Your task to perform on an android device: Open location settings Image 0: 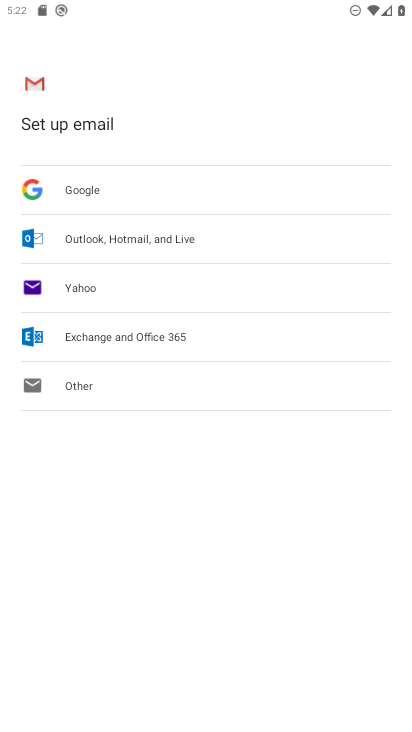
Step 0: press back button
Your task to perform on an android device: Open location settings Image 1: 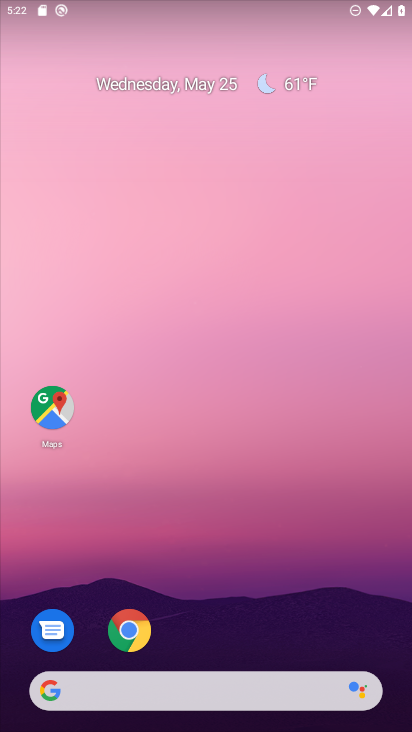
Step 1: drag from (232, 643) to (256, 21)
Your task to perform on an android device: Open location settings Image 2: 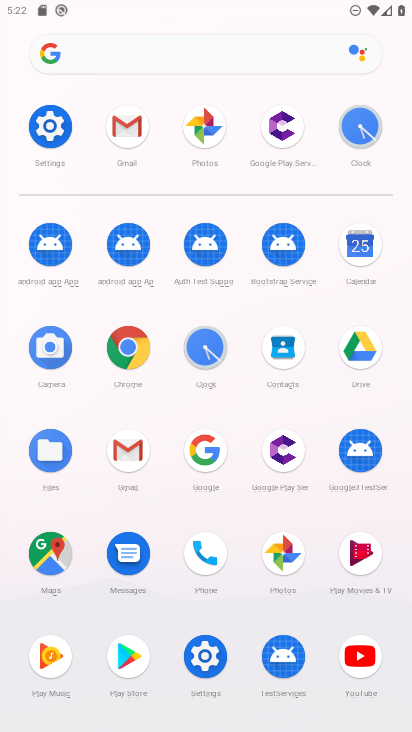
Step 2: click (46, 127)
Your task to perform on an android device: Open location settings Image 3: 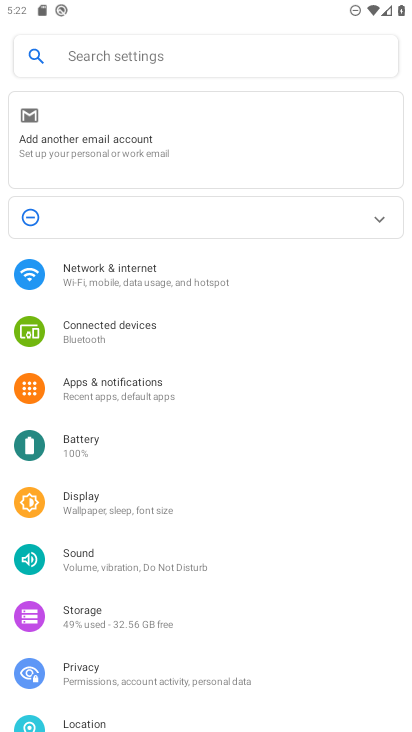
Step 3: click (82, 717)
Your task to perform on an android device: Open location settings Image 4: 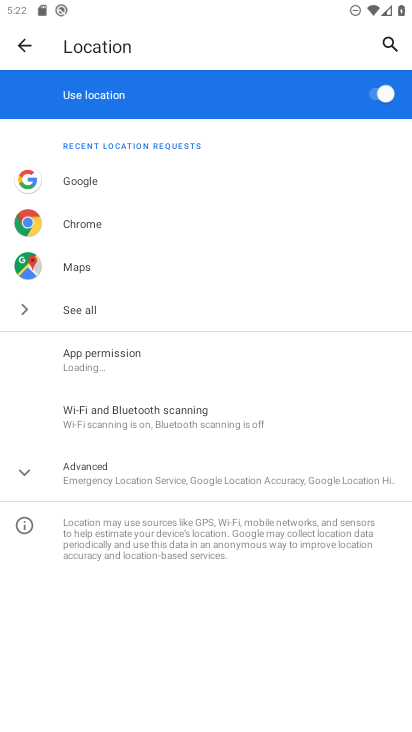
Step 4: task complete